Your task to perform on an android device: Open maps Image 0: 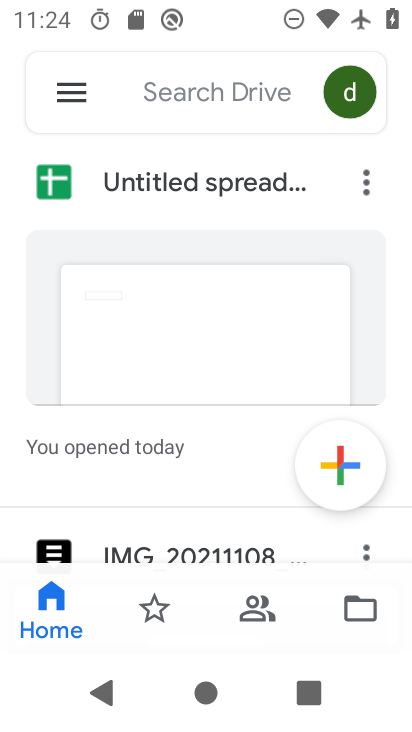
Step 0: press home button
Your task to perform on an android device: Open maps Image 1: 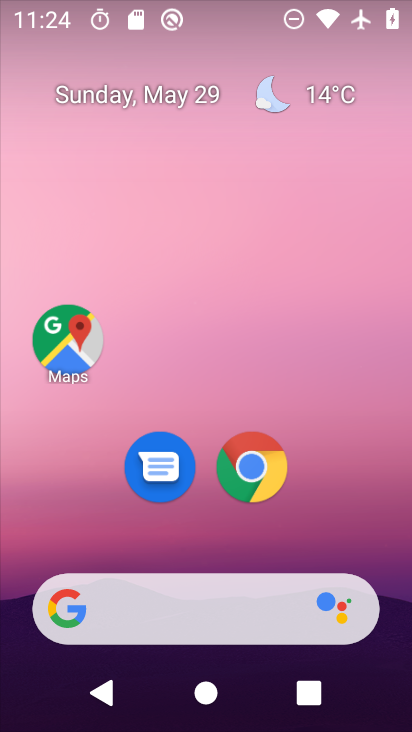
Step 1: click (78, 360)
Your task to perform on an android device: Open maps Image 2: 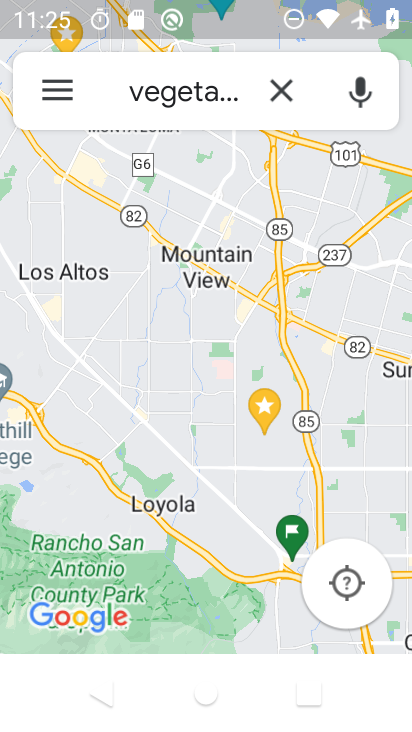
Step 2: click (272, 82)
Your task to perform on an android device: Open maps Image 3: 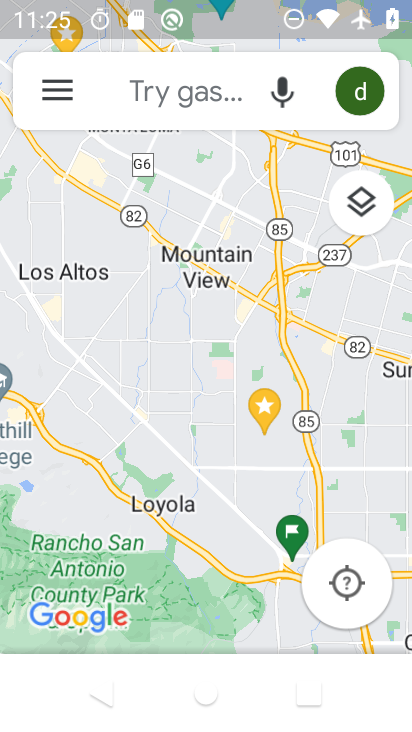
Step 3: task complete